Your task to perform on an android device: Go to CNN.com Image 0: 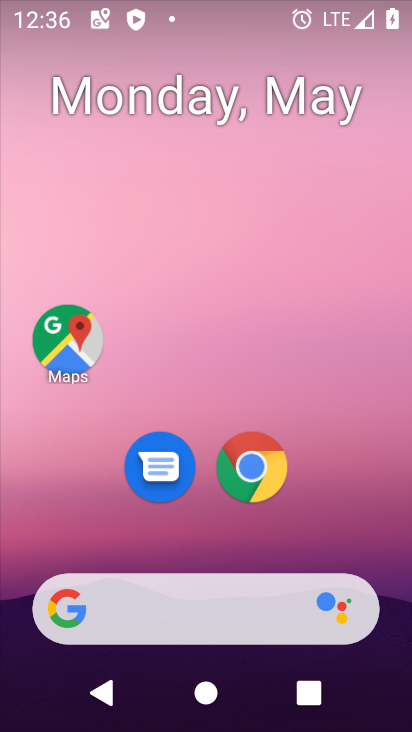
Step 0: click (267, 468)
Your task to perform on an android device: Go to CNN.com Image 1: 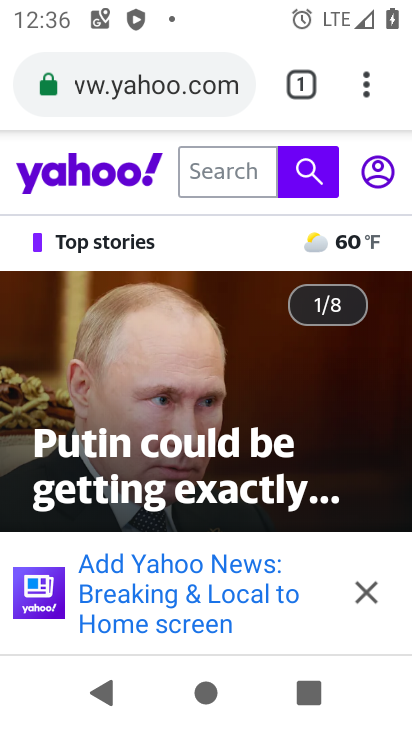
Step 1: click (108, 79)
Your task to perform on an android device: Go to CNN.com Image 2: 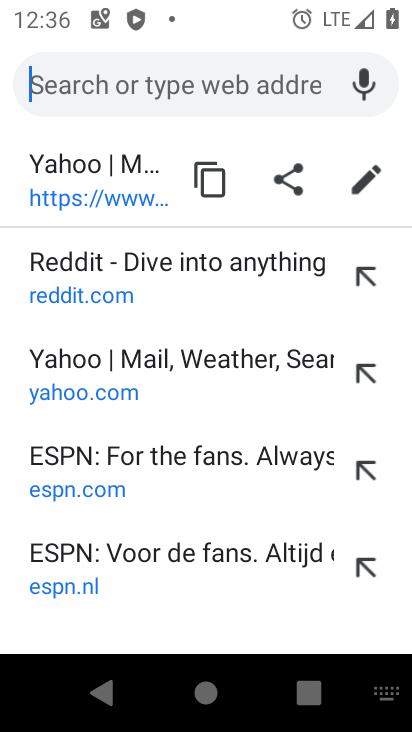
Step 2: type "cnn.com"
Your task to perform on an android device: Go to CNN.com Image 3: 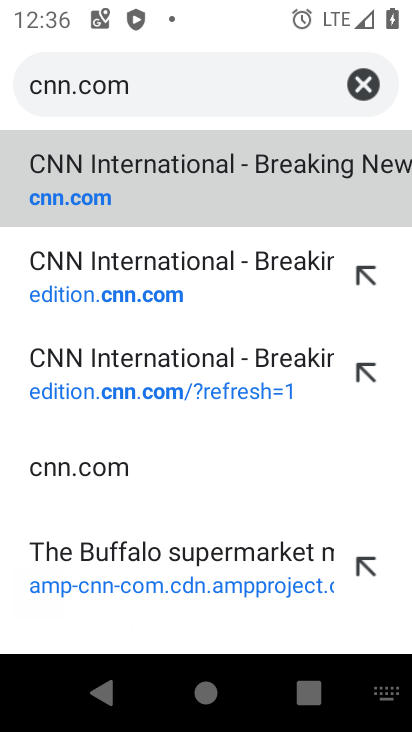
Step 3: click (87, 179)
Your task to perform on an android device: Go to CNN.com Image 4: 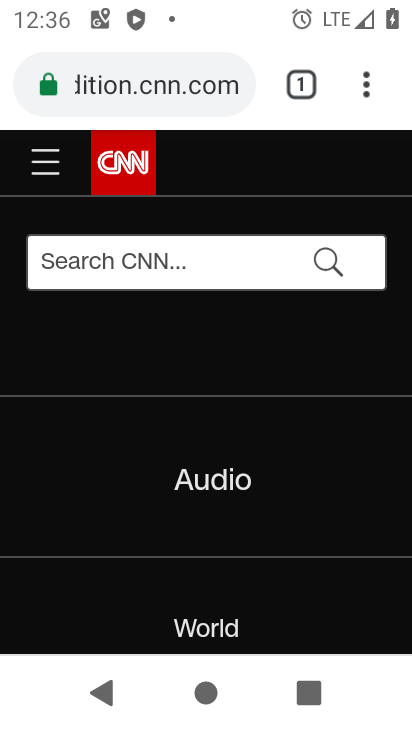
Step 4: task complete